Your task to perform on an android device: Go to ESPN.com Image 0: 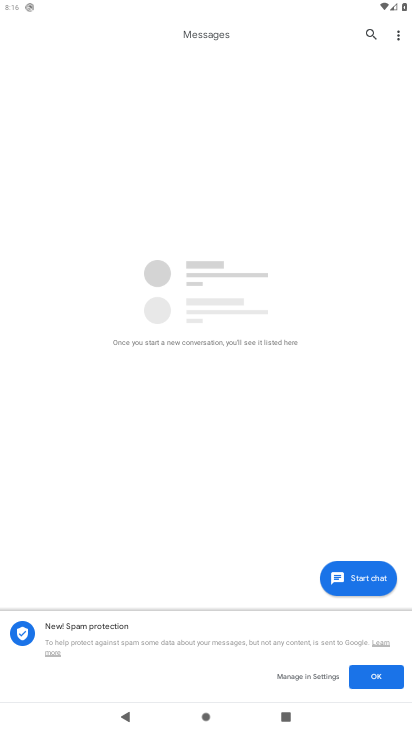
Step 0: press back button
Your task to perform on an android device: Go to ESPN.com Image 1: 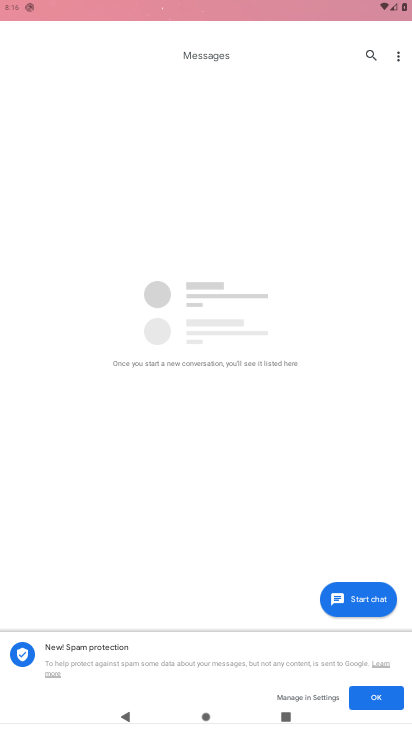
Step 1: press home button
Your task to perform on an android device: Go to ESPN.com Image 2: 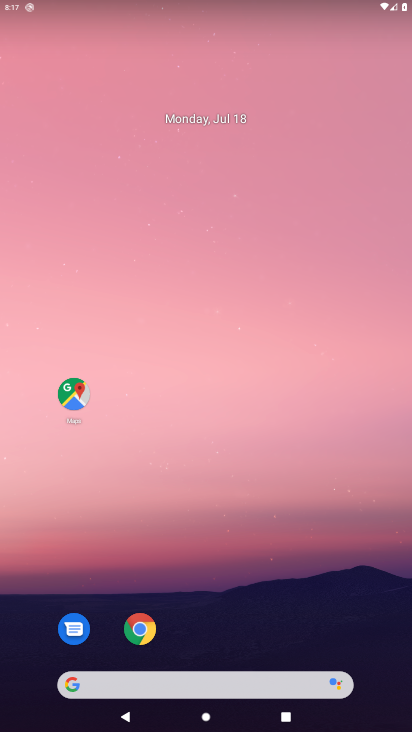
Step 2: click (128, 632)
Your task to perform on an android device: Go to ESPN.com Image 3: 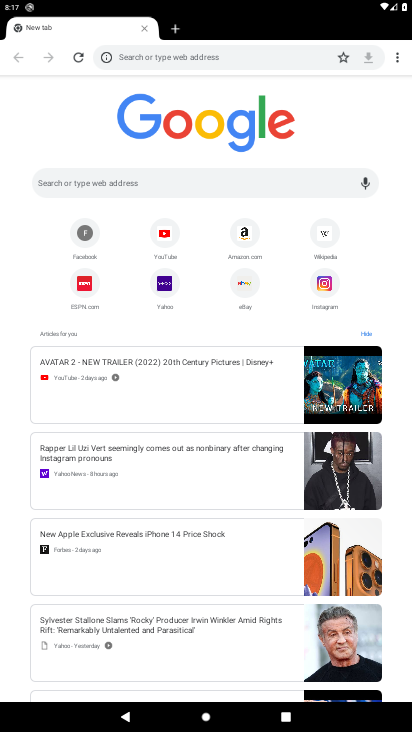
Step 3: click (81, 282)
Your task to perform on an android device: Go to ESPN.com Image 4: 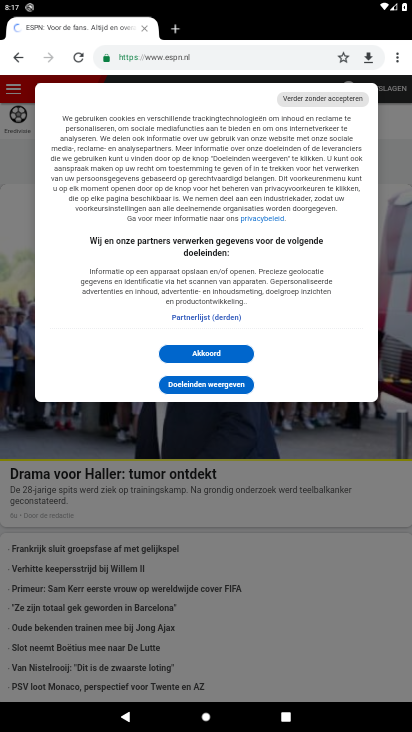
Step 4: task complete